Your task to perform on an android device: open app "Adobe Acrobat Reader" (install if not already installed) and enter user name: "nondescriptly@inbox.com" and password: "negating" Image 0: 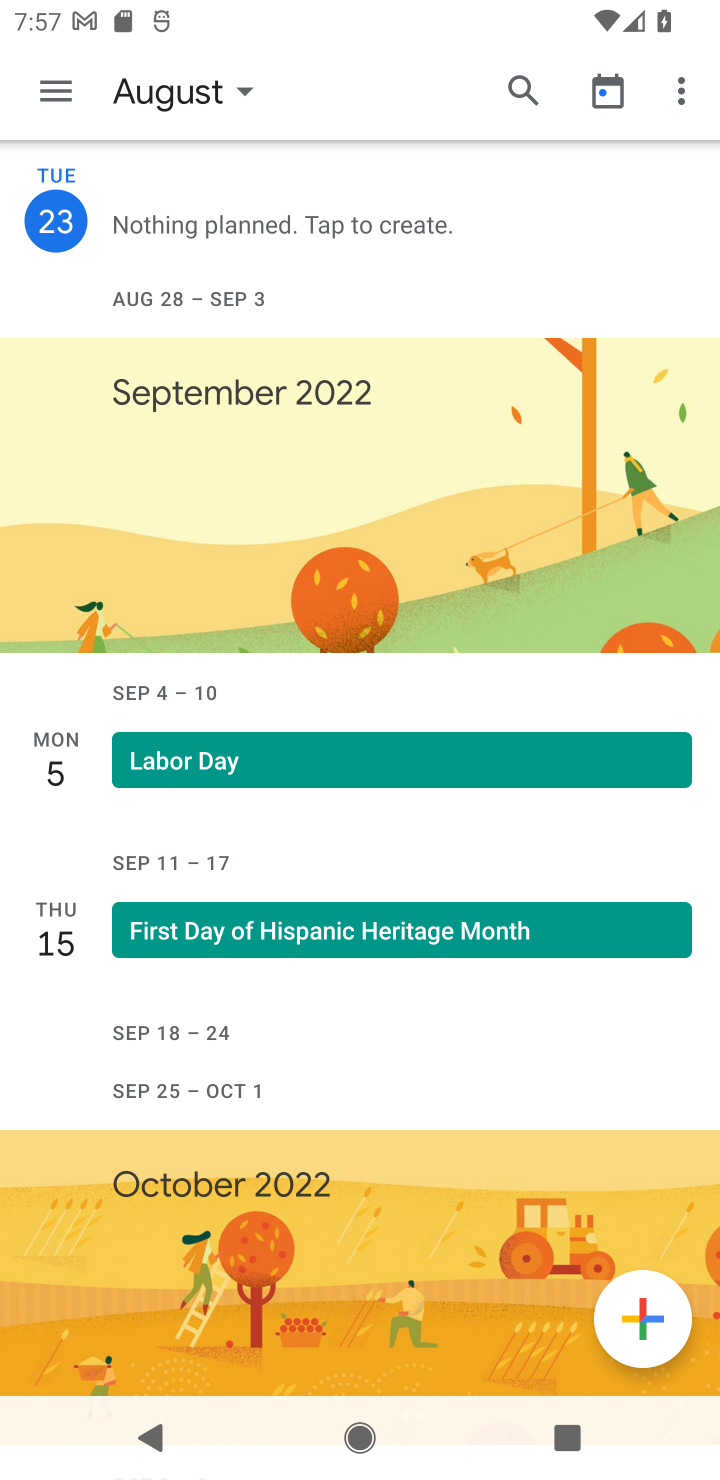
Step 0: press home button
Your task to perform on an android device: open app "Adobe Acrobat Reader" (install if not already installed) and enter user name: "nondescriptly@inbox.com" and password: "negating" Image 1: 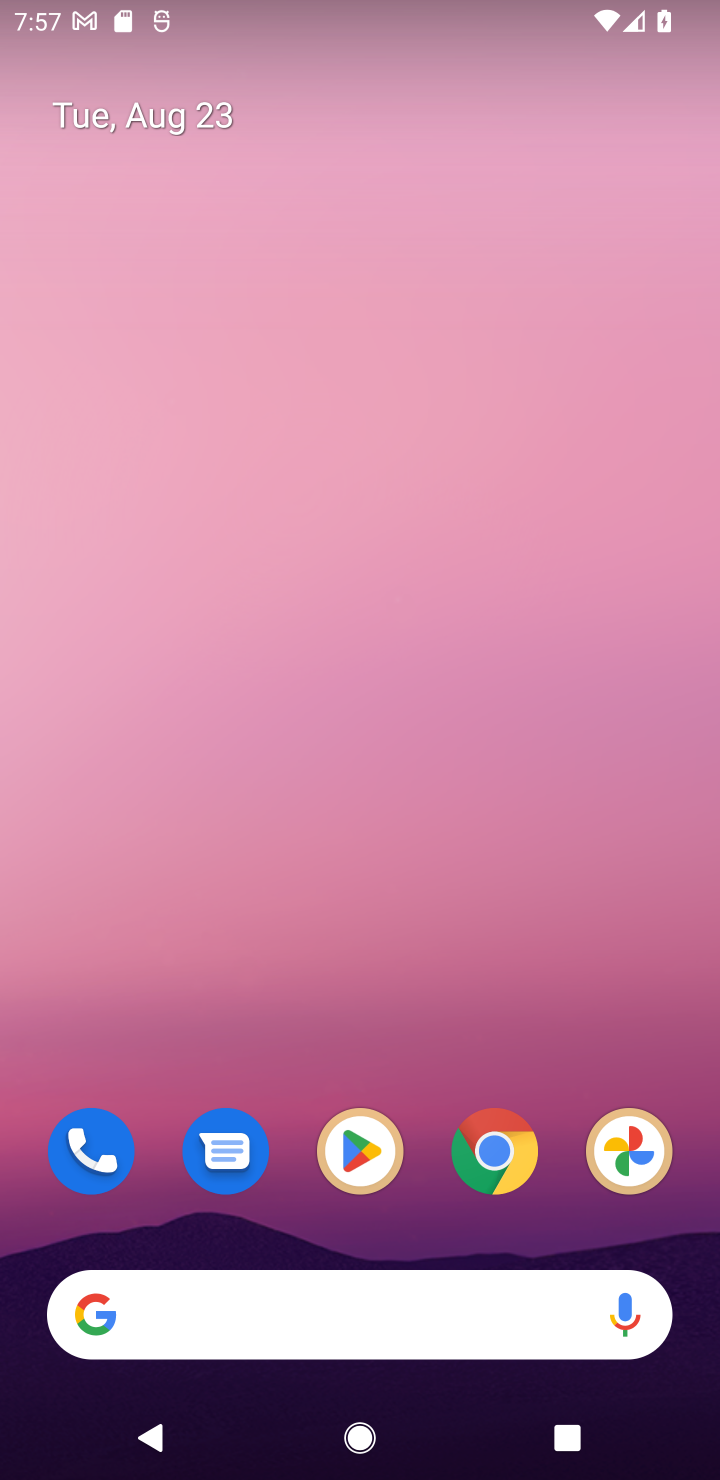
Step 1: click (350, 1158)
Your task to perform on an android device: open app "Adobe Acrobat Reader" (install if not already installed) and enter user name: "nondescriptly@inbox.com" and password: "negating" Image 2: 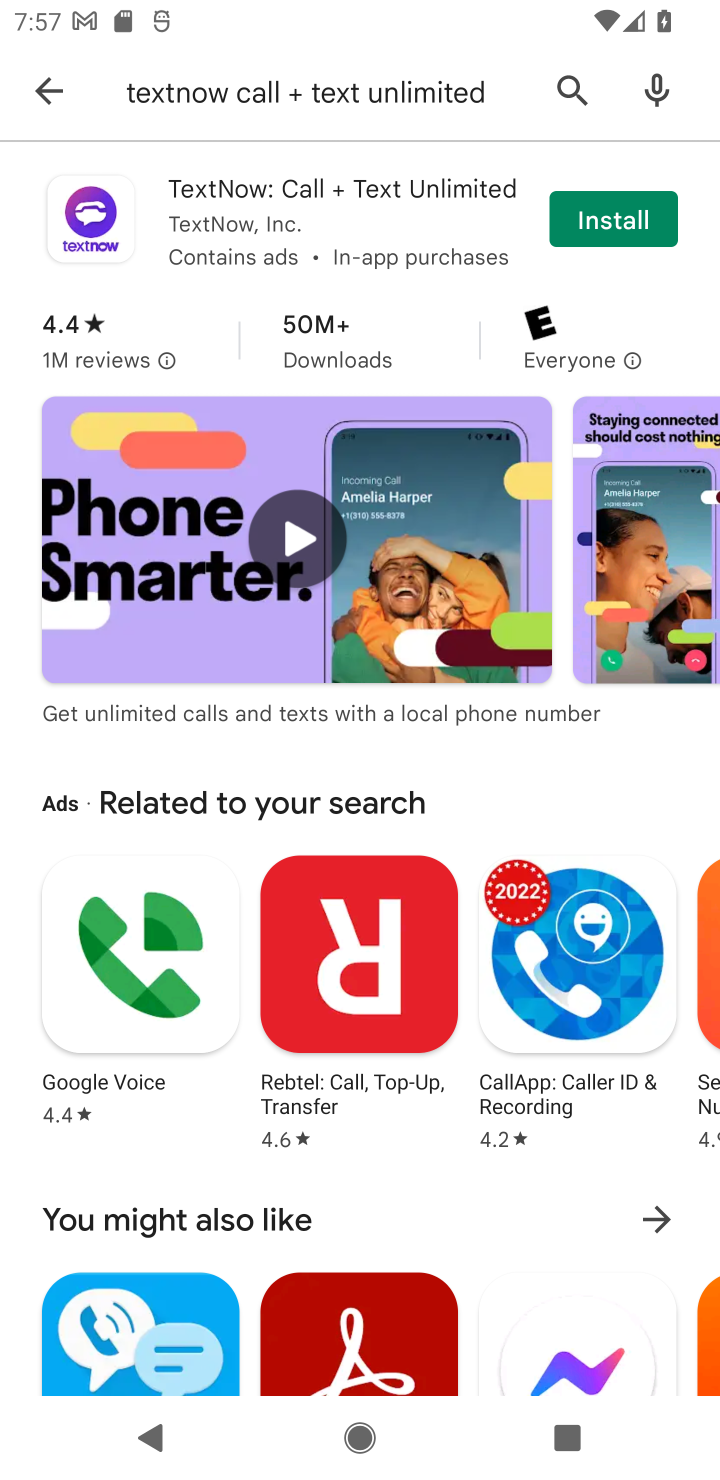
Step 2: click (53, 98)
Your task to perform on an android device: open app "Adobe Acrobat Reader" (install if not already installed) and enter user name: "nondescriptly@inbox.com" and password: "negating" Image 3: 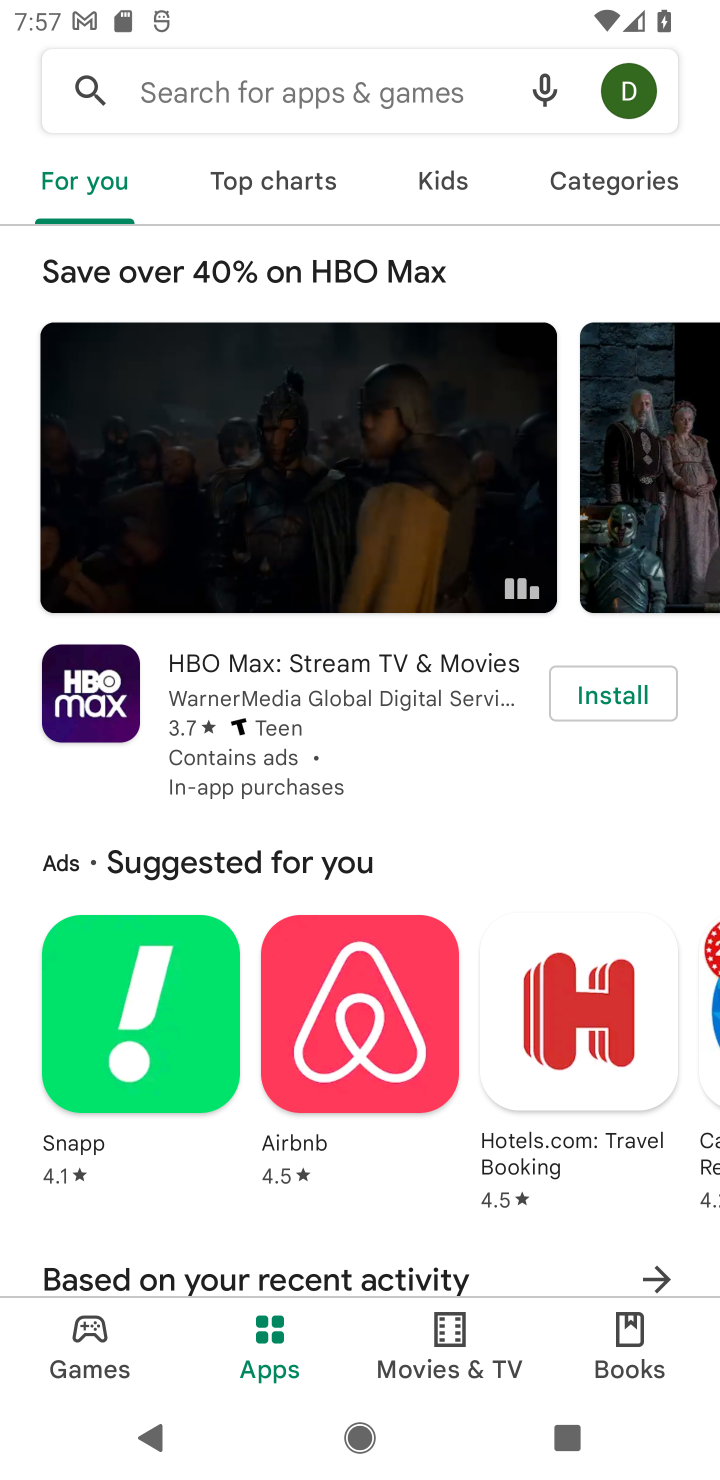
Step 3: click (209, 98)
Your task to perform on an android device: open app "Adobe Acrobat Reader" (install if not already installed) and enter user name: "nondescriptly@inbox.com" and password: "negating" Image 4: 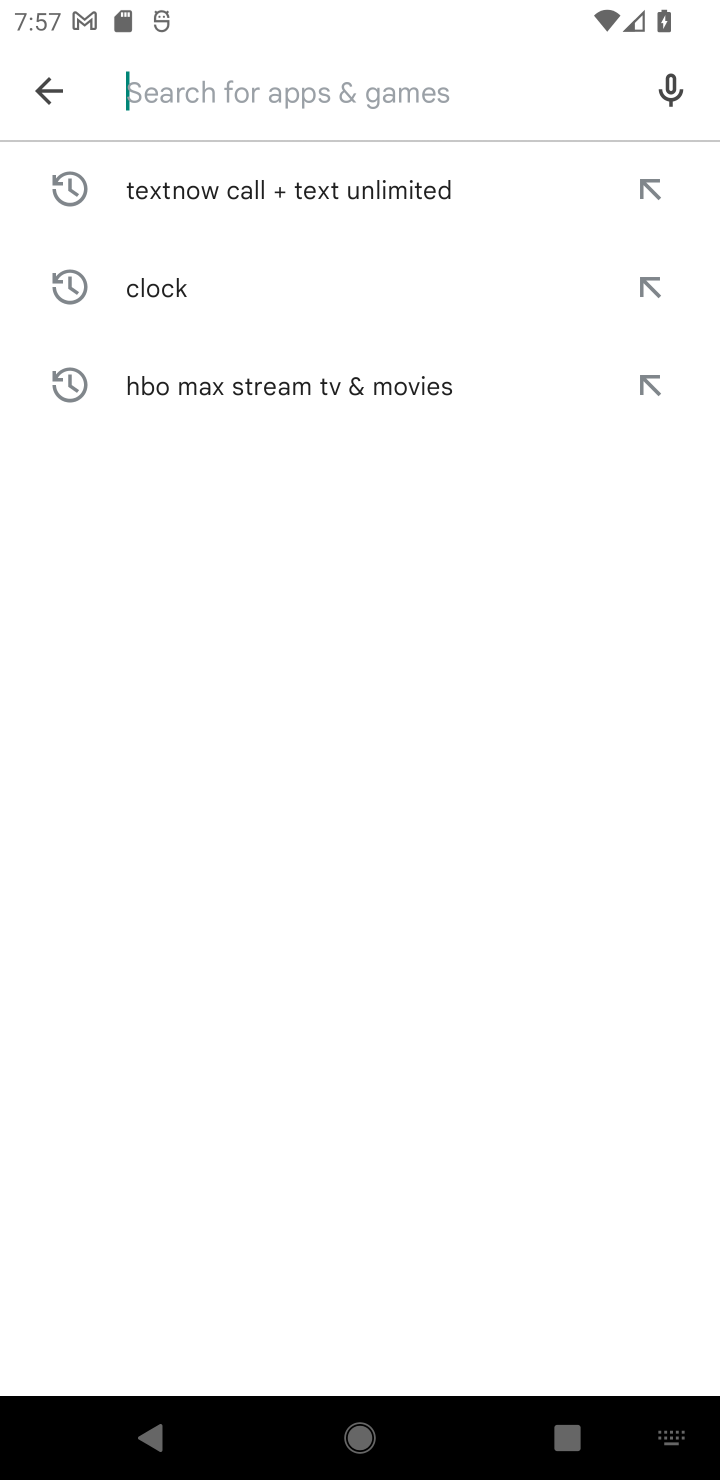
Step 4: type "Adobe Acrobat Reader" "
Your task to perform on an android device: open app "Adobe Acrobat Reader" (install if not already installed) and enter user name: "nondescriptly@inbox.com" and password: "negating" Image 5: 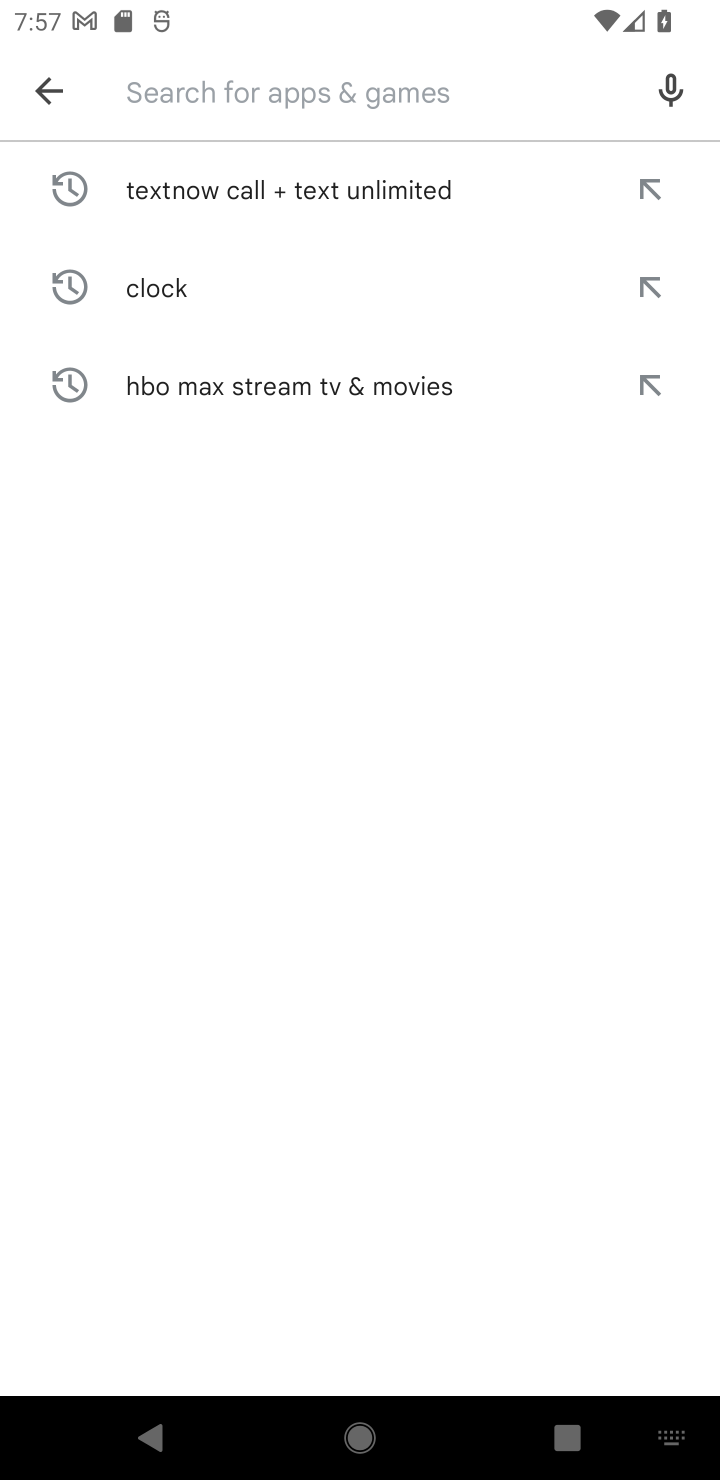
Step 5: click (229, 197)
Your task to perform on an android device: open app "Adobe Acrobat Reader" (install if not already installed) and enter user name: "nondescriptly@inbox.com" and password: "negating" Image 6: 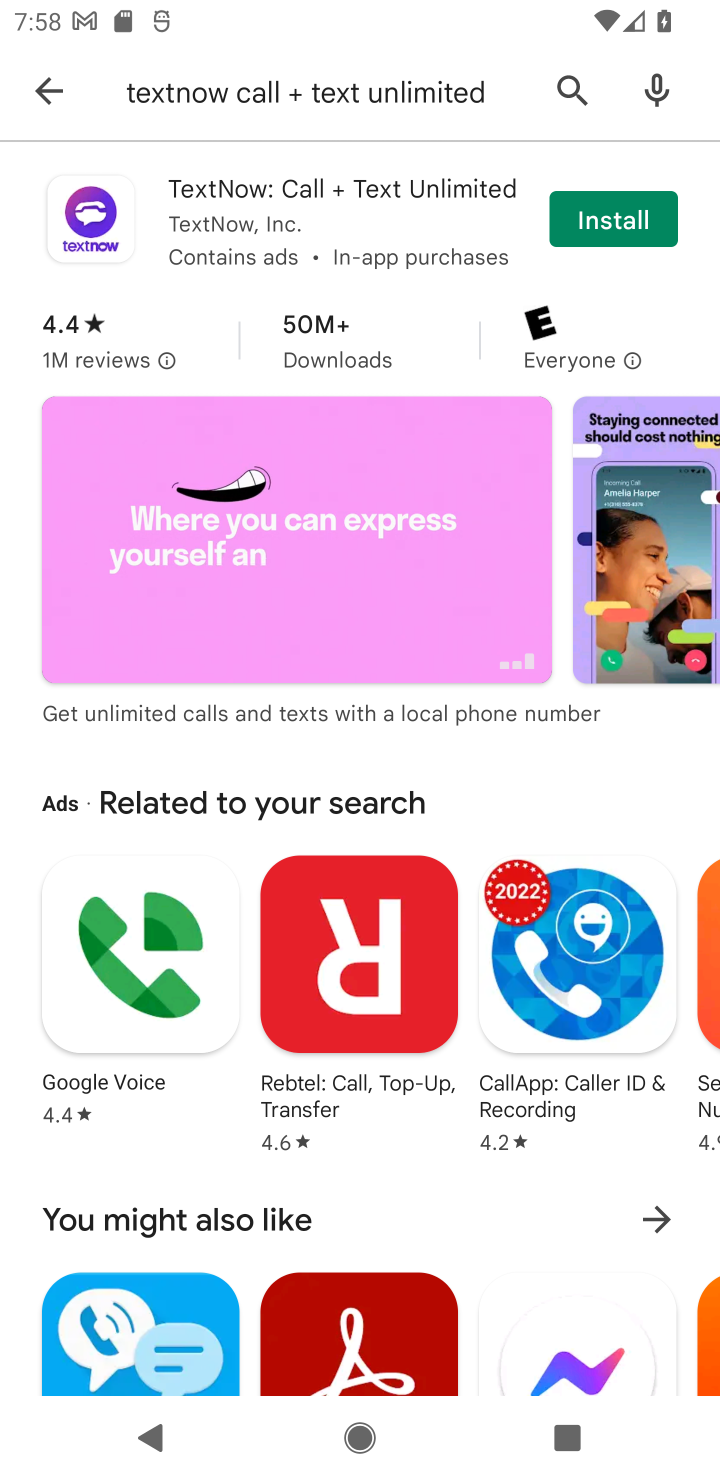
Step 6: click (612, 229)
Your task to perform on an android device: open app "Adobe Acrobat Reader" (install if not already installed) and enter user name: "nondescriptly@inbox.com" and password: "negating" Image 7: 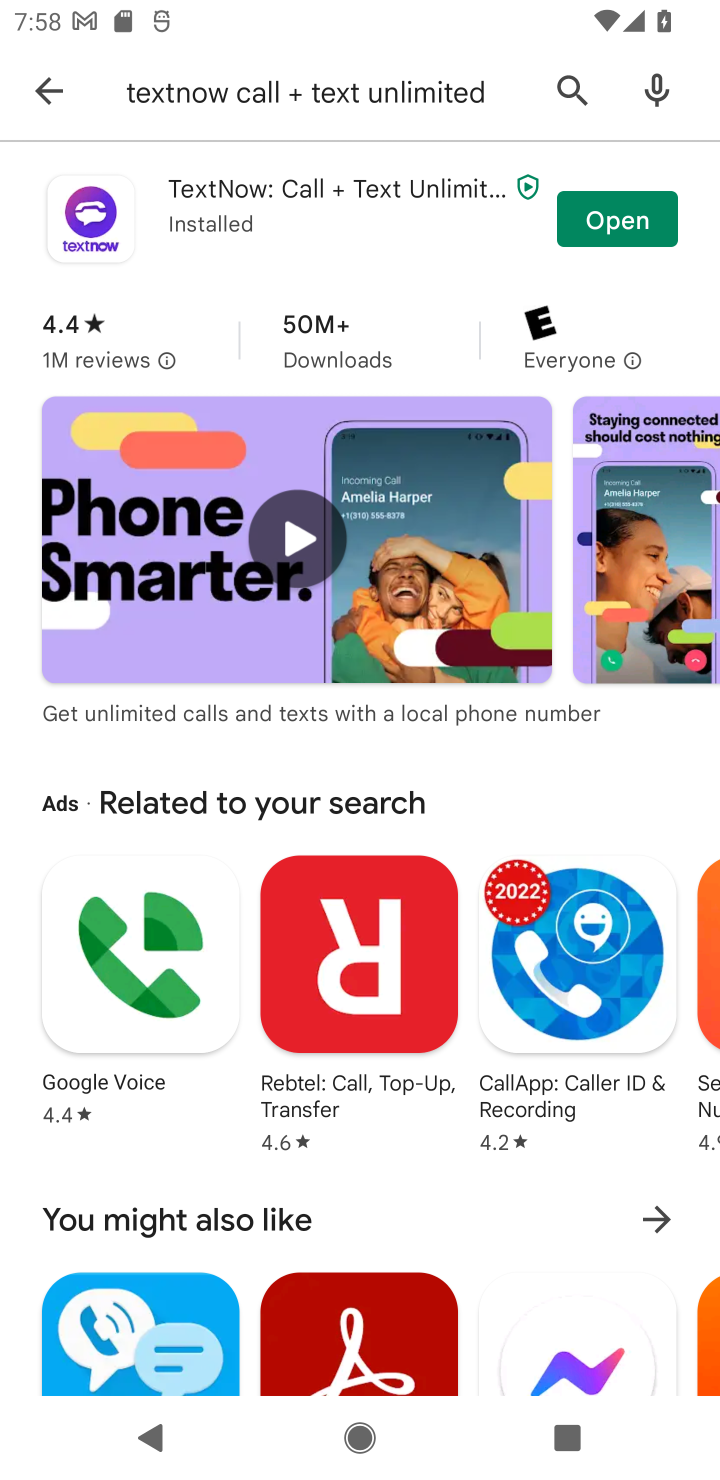
Step 7: click (603, 209)
Your task to perform on an android device: open app "Adobe Acrobat Reader" (install if not already installed) and enter user name: "nondescriptly@inbox.com" and password: "negating" Image 8: 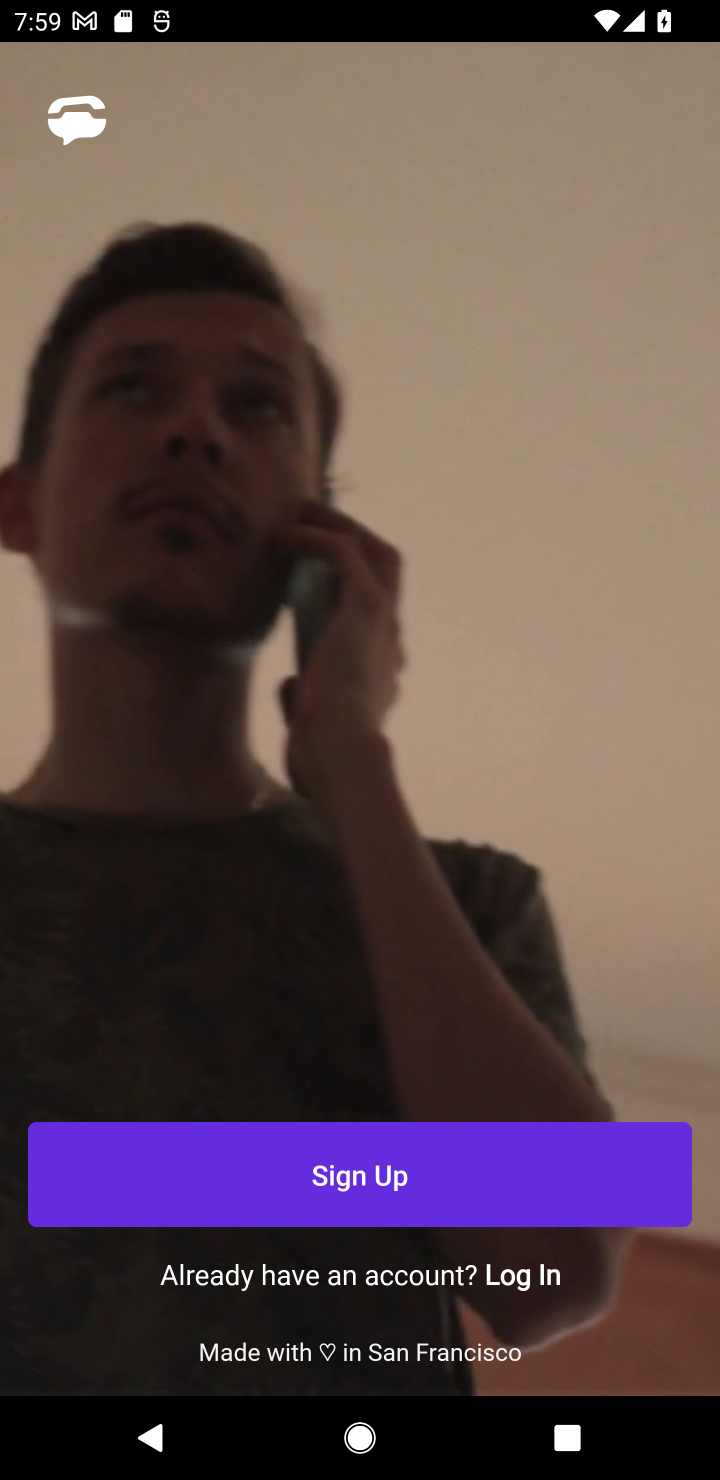
Step 8: task complete